Your task to perform on an android device: set an alarm Image 0: 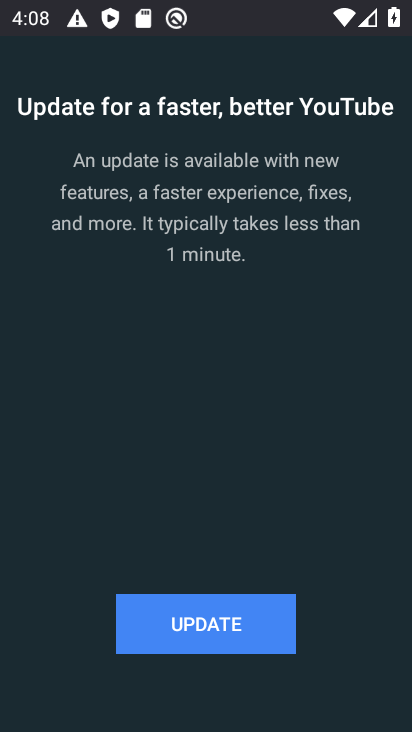
Step 0: press home button
Your task to perform on an android device: set an alarm Image 1: 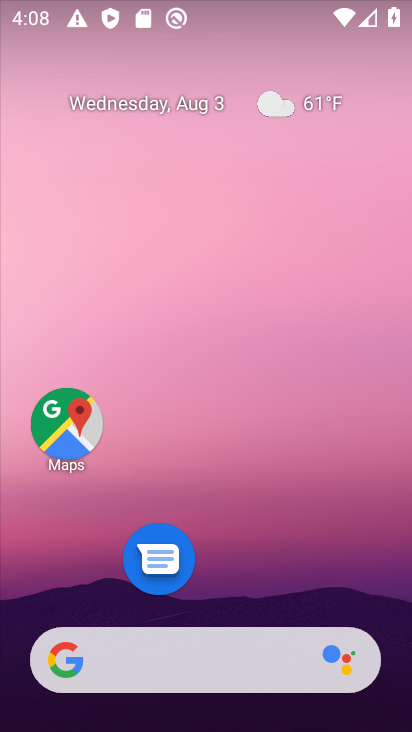
Step 1: drag from (200, 634) to (200, 176)
Your task to perform on an android device: set an alarm Image 2: 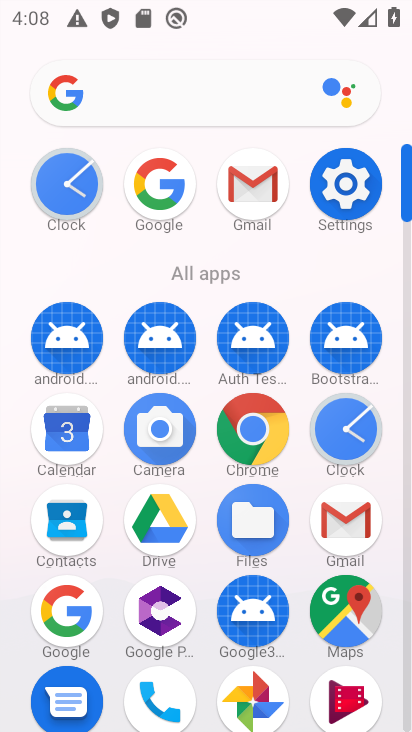
Step 2: click (61, 191)
Your task to perform on an android device: set an alarm Image 3: 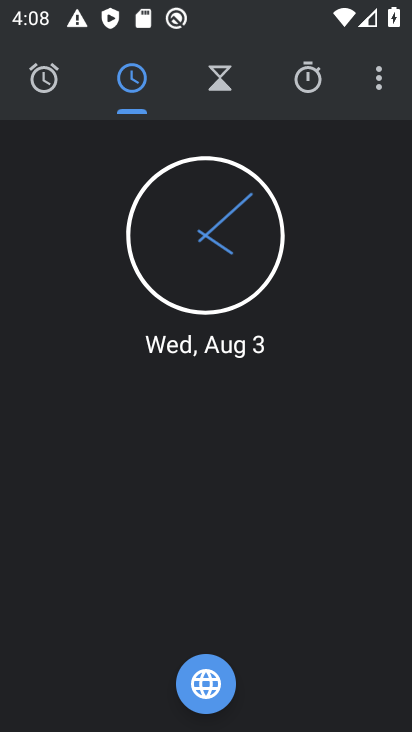
Step 3: click (52, 86)
Your task to perform on an android device: set an alarm Image 4: 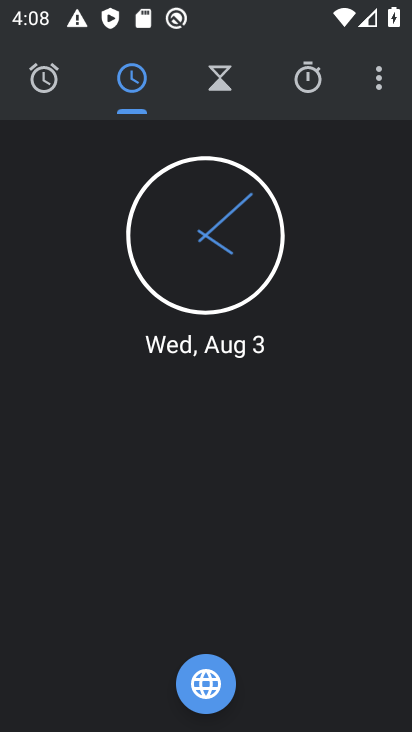
Step 4: click (37, 78)
Your task to perform on an android device: set an alarm Image 5: 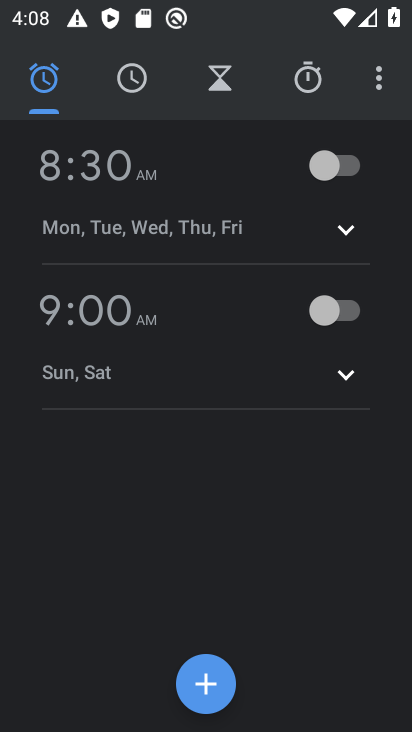
Step 5: click (200, 687)
Your task to perform on an android device: set an alarm Image 6: 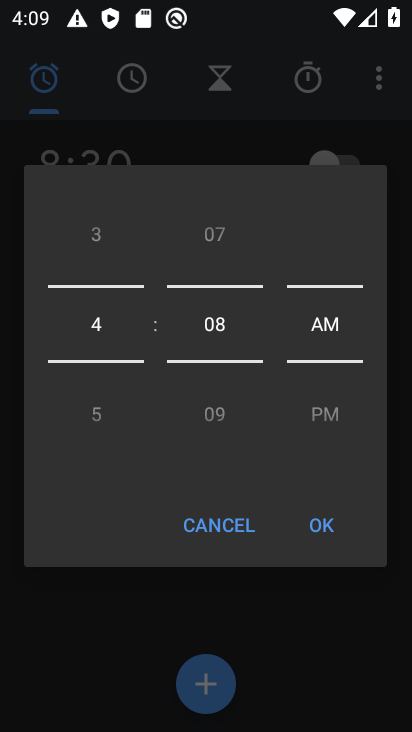
Step 6: click (101, 412)
Your task to perform on an android device: set an alarm Image 7: 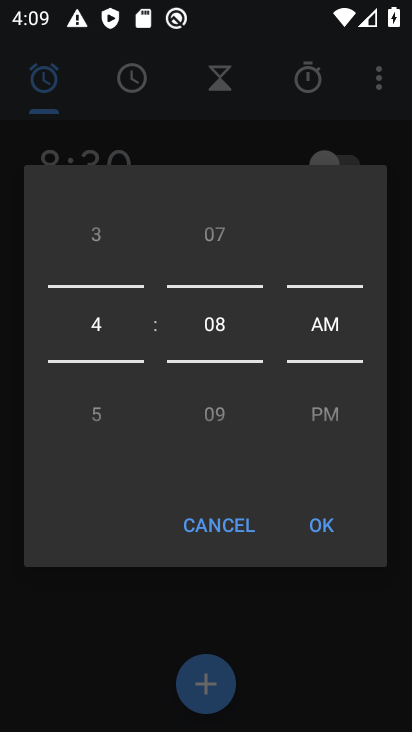
Step 7: drag from (106, 382) to (127, 522)
Your task to perform on an android device: set an alarm Image 8: 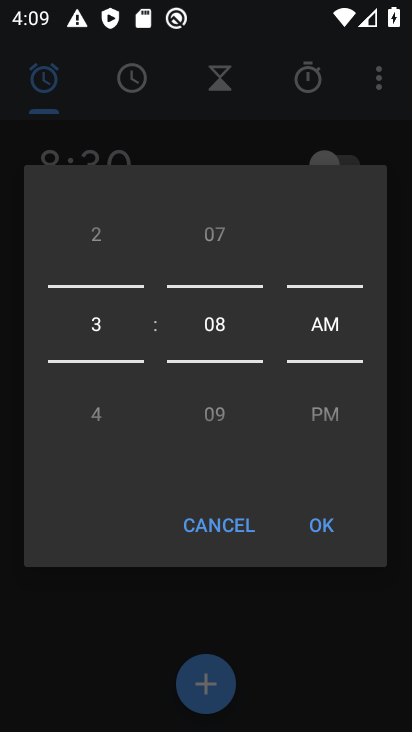
Step 8: drag from (116, 377) to (116, 540)
Your task to perform on an android device: set an alarm Image 9: 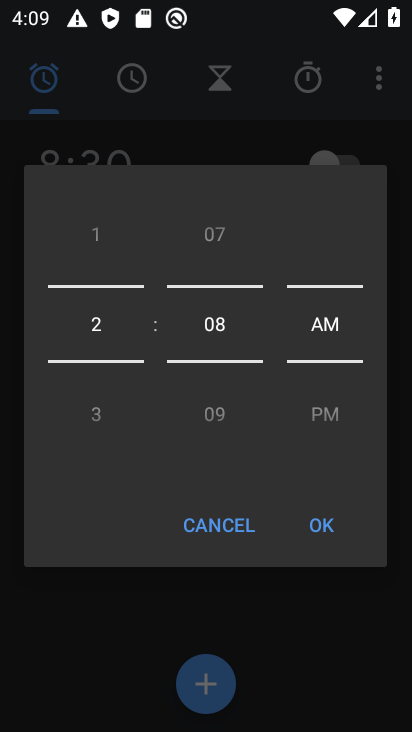
Step 9: click (316, 534)
Your task to perform on an android device: set an alarm Image 10: 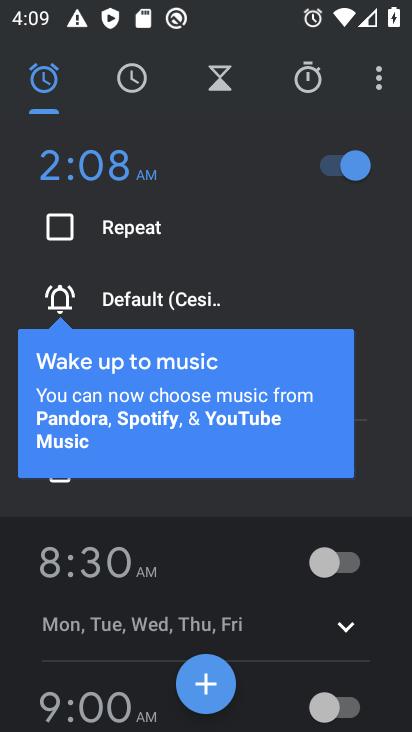
Step 10: task complete